Your task to perform on an android device: Open wifi settings Image 0: 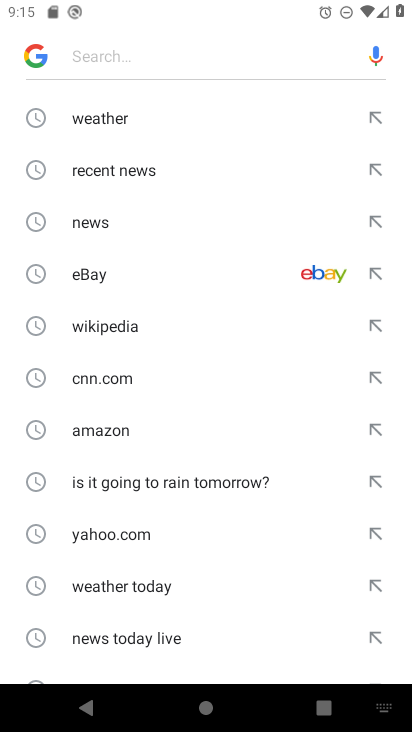
Step 0: press home button
Your task to perform on an android device: Open wifi settings Image 1: 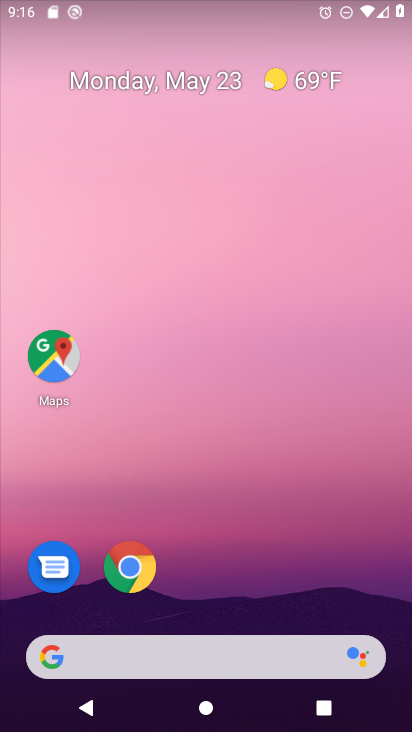
Step 1: drag from (223, 594) to (128, 0)
Your task to perform on an android device: Open wifi settings Image 2: 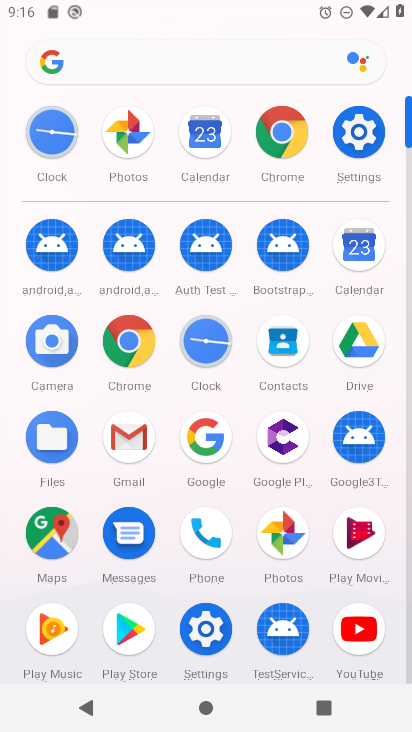
Step 2: click (357, 150)
Your task to perform on an android device: Open wifi settings Image 3: 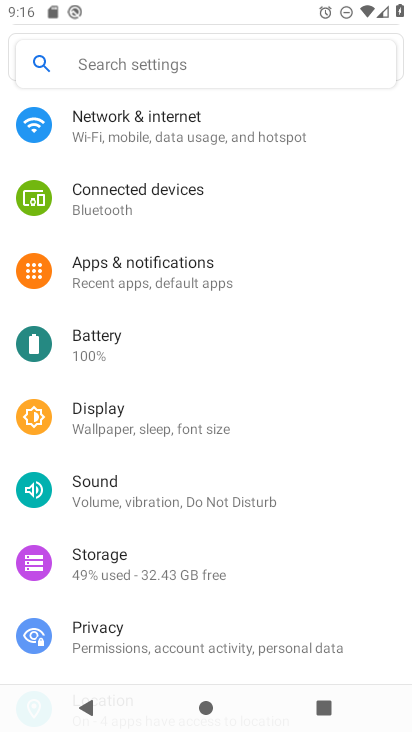
Step 3: click (161, 137)
Your task to perform on an android device: Open wifi settings Image 4: 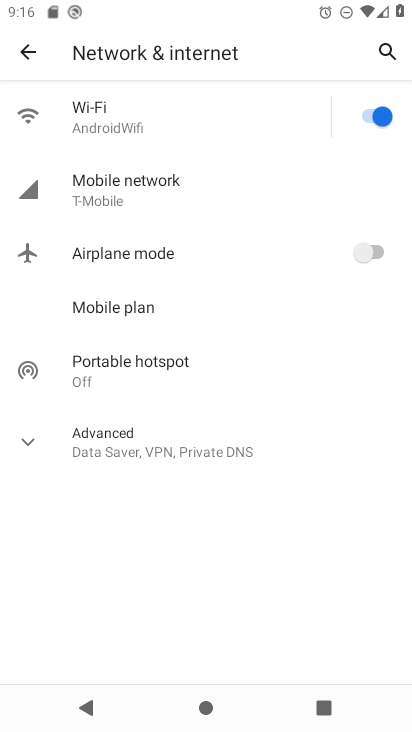
Step 4: click (148, 121)
Your task to perform on an android device: Open wifi settings Image 5: 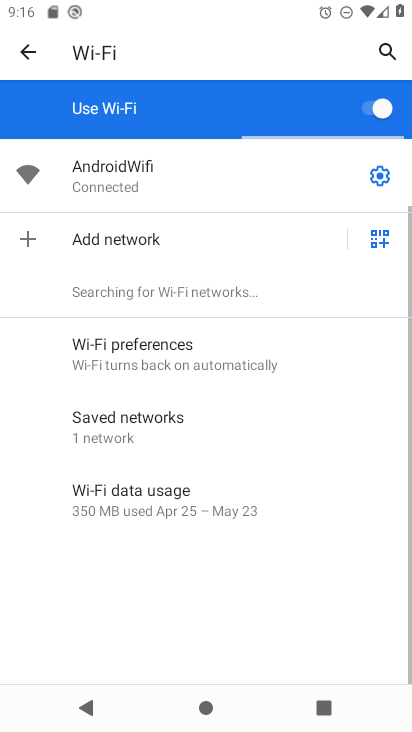
Step 5: task complete